Your task to perform on an android device: turn on priority inbox in the gmail app Image 0: 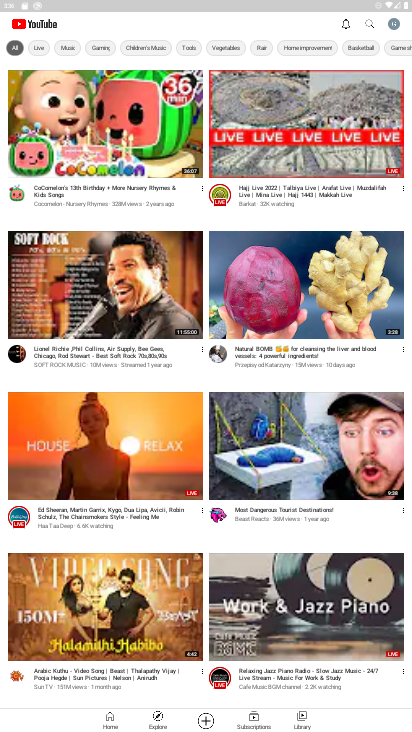
Step 0: press home button
Your task to perform on an android device: turn on priority inbox in the gmail app Image 1: 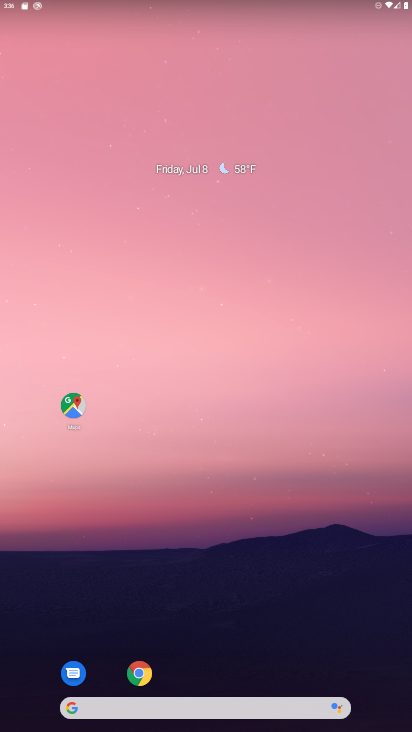
Step 1: drag from (186, 676) to (192, 397)
Your task to perform on an android device: turn on priority inbox in the gmail app Image 2: 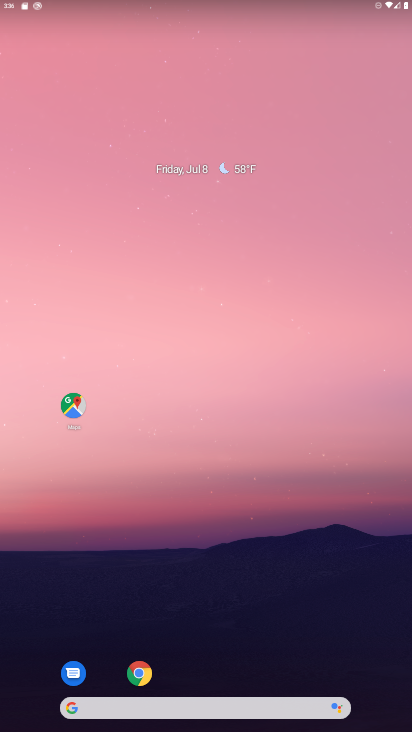
Step 2: drag from (222, 646) to (257, 284)
Your task to perform on an android device: turn on priority inbox in the gmail app Image 3: 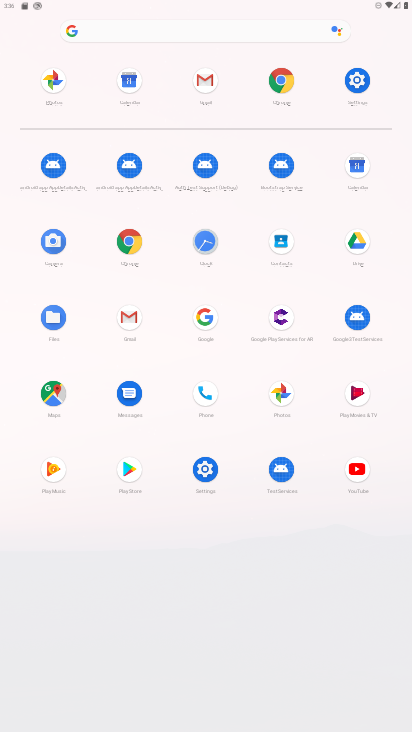
Step 3: click (217, 82)
Your task to perform on an android device: turn on priority inbox in the gmail app Image 4: 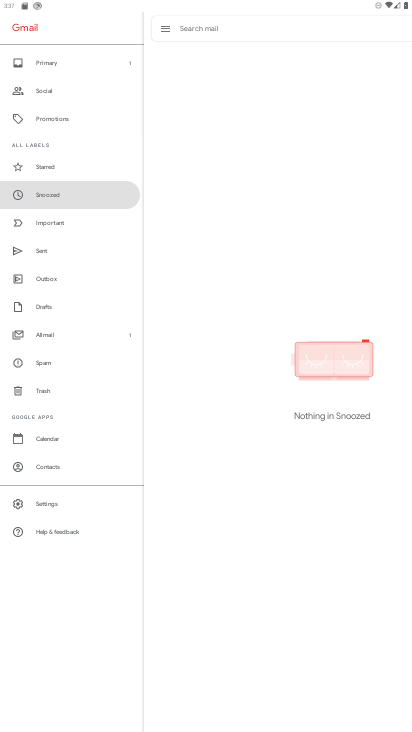
Step 4: click (39, 498)
Your task to perform on an android device: turn on priority inbox in the gmail app Image 5: 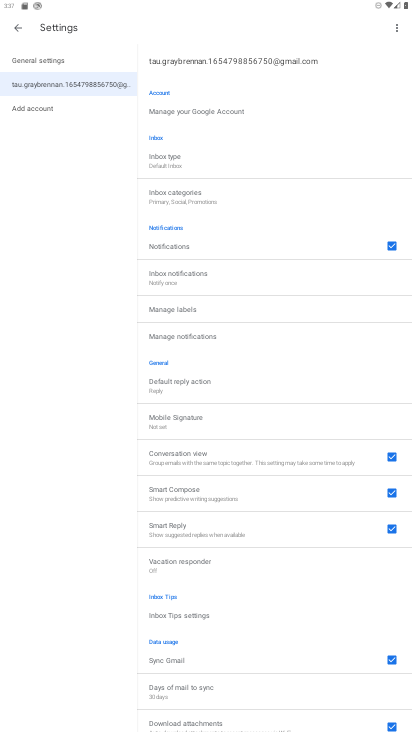
Step 5: click (157, 162)
Your task to perform on an android device: turn on priority inbox in the gmail app Image 6: 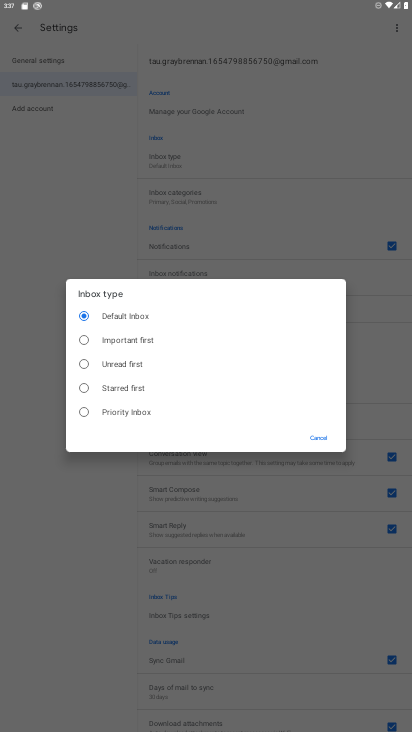
Step 6: click (134, 415)
Your task to perform on an android device: turn on priority inbox in the gmail app Image 7: 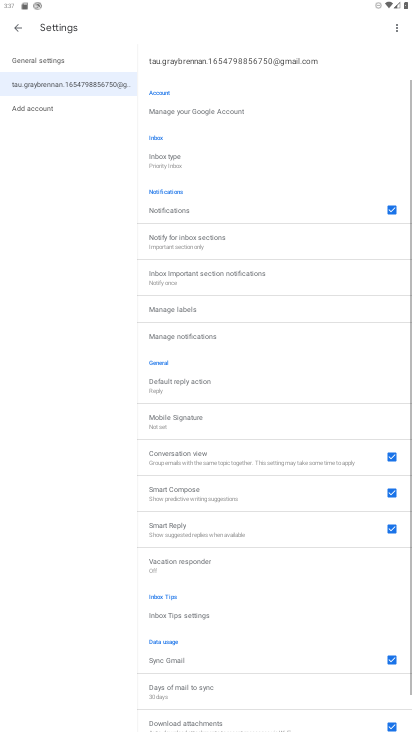
Step 7: task complete